Your task to perform on an android device: Search for sushi restaurants on Maps Image 0: 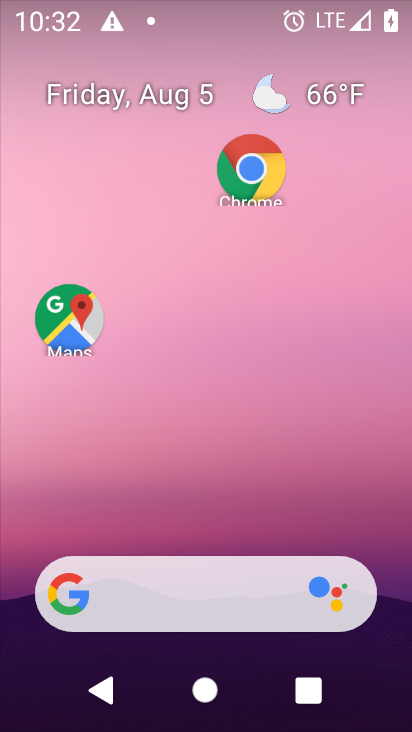
Step 0: click (83, 348)
Your task to perform on an android device: Search for sushi restaurants on Maps Image 1: 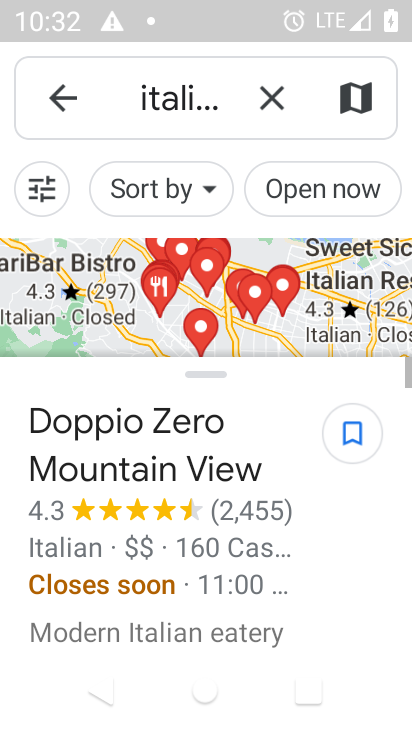
Step 1: click (255, 95)
Your task to perform on an android device: Search for sushi restaurants on Maps Image 2: 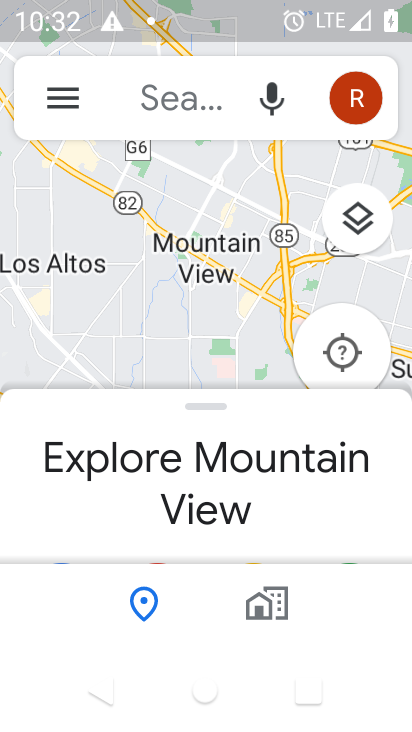
Step 2: click (186, 95)
Your task to perform on an android device: Search for sushi restaurants on Maps Image 3: 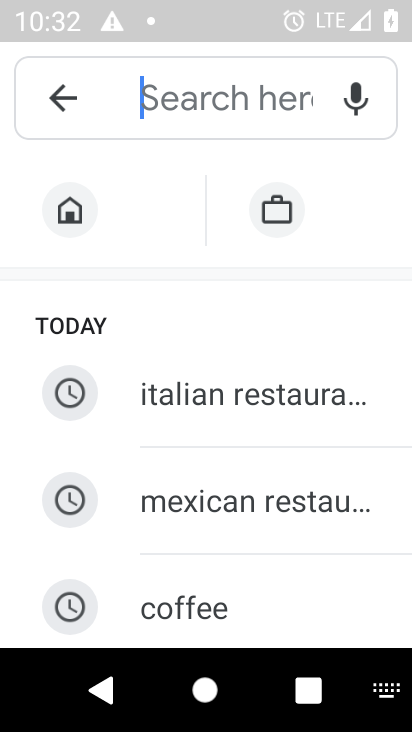
Step 3: type "sushi restaurants"
Your task to perform on an android device: Search for sushi restaurants on Maps Image 4: 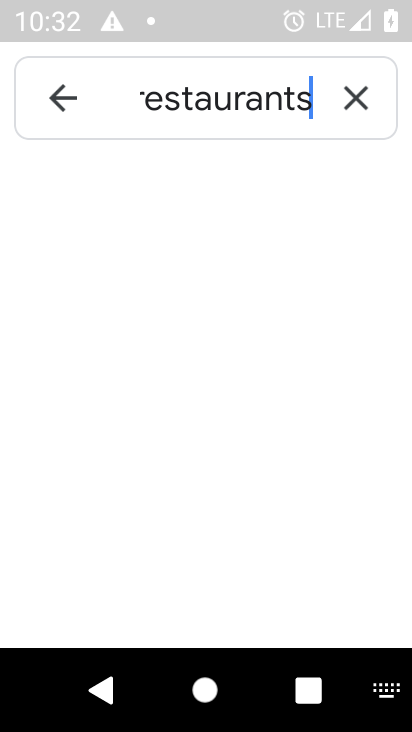
Step 4: type ""
Your task to perform on an android device: Search for sushi restaurants on Maps Image 5: 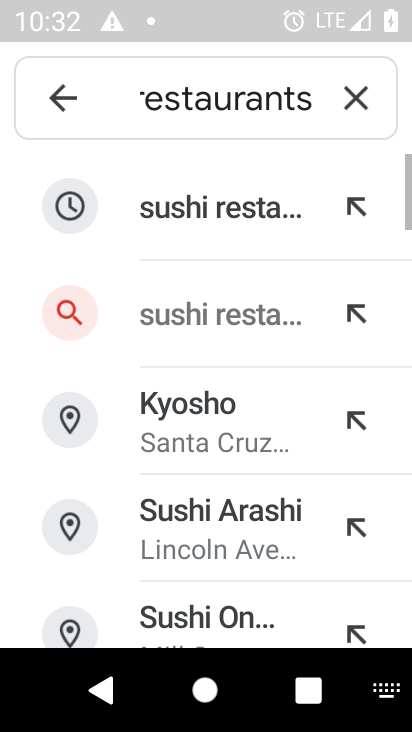
Step 5: click (244, 224)
Your task to perform on an android device: Search for sushi restaurants on Maps Image 6: 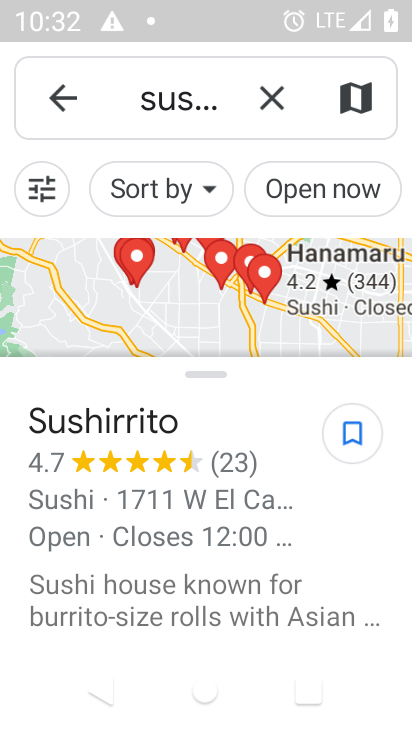
Step 6: task complete